Your task to perform on an android device: Open calendar and show me the third week of next month Image 0: 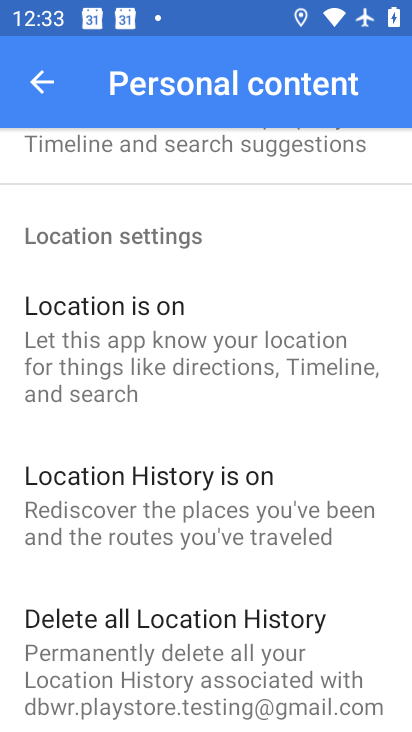
Step 0: press home button
Your task to perform on an android device: Open calendar and show me the third week of next month Image 1: 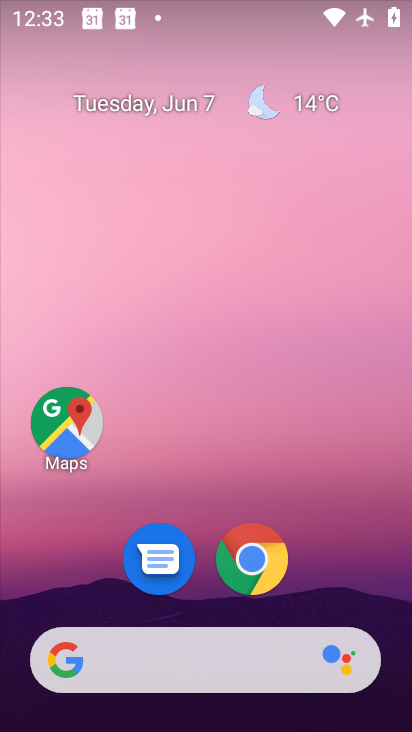
Step 1: drag from (389, 616) to (331, 49)
Your task to perform on an android device: Open calendar and show me the third week of next month Image 2: 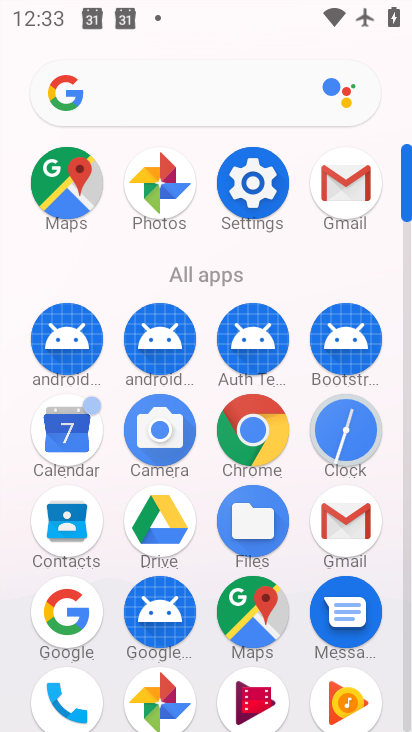
Step 2: click (407, 693)
Your task to perform on an android device: Open calendar and show me the third week of next month Image 3: 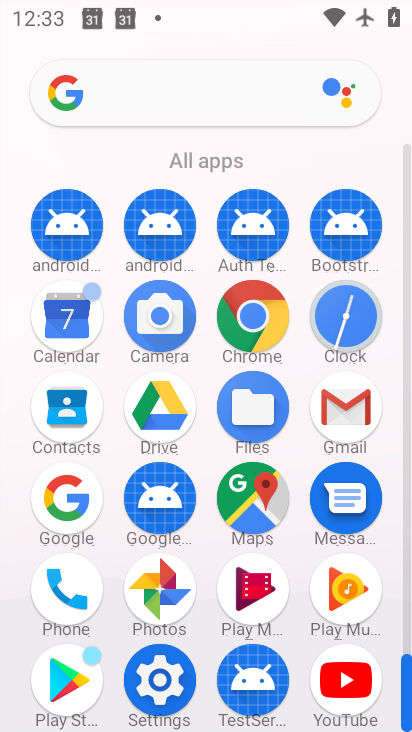
Step 3: click (65, 315)
Your task to perform on an android device: Open calendar and show me the third week of next month Image 4: 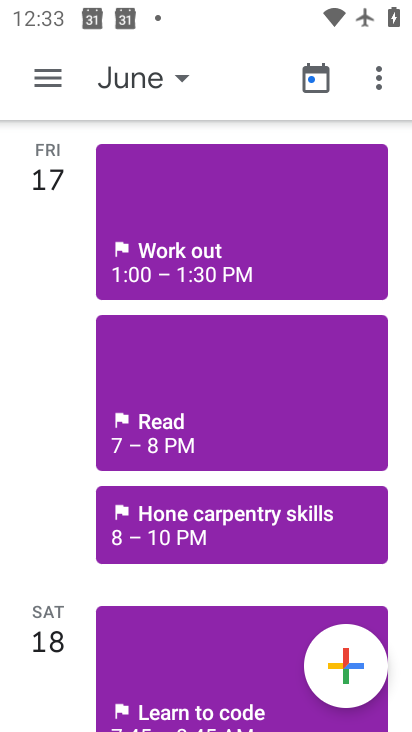
Step 4: click (48, 66)
Your task to perform on an android device: Open calendar and show me the third week of next month Image 5: 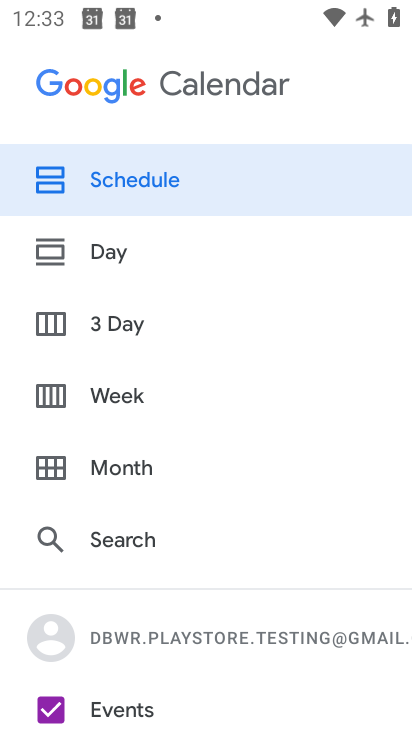
Step 5: click (130, 395)
Your task to perform on an android device: Open calendar and show me the third week of next month Image 6: 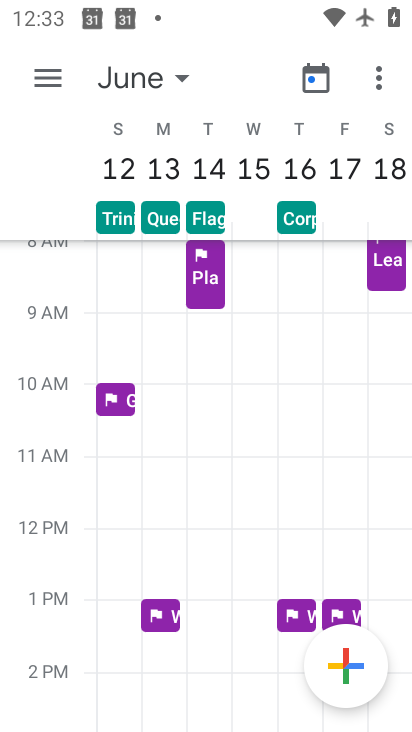
Step 6: click (180, 77)
Your task to perform on an android device: Open calendar and show me the third week of next month Image 7: 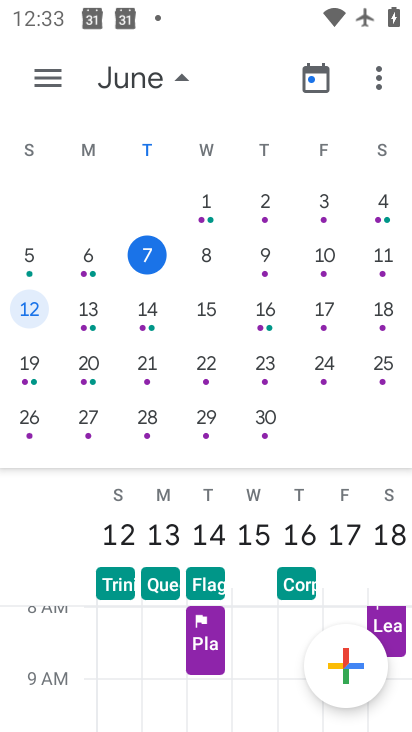
Step 7: drag from (372, 299) to (50, 284)
Your task to perform on an android device: Open calendar and show me the third week of next month Image 8: 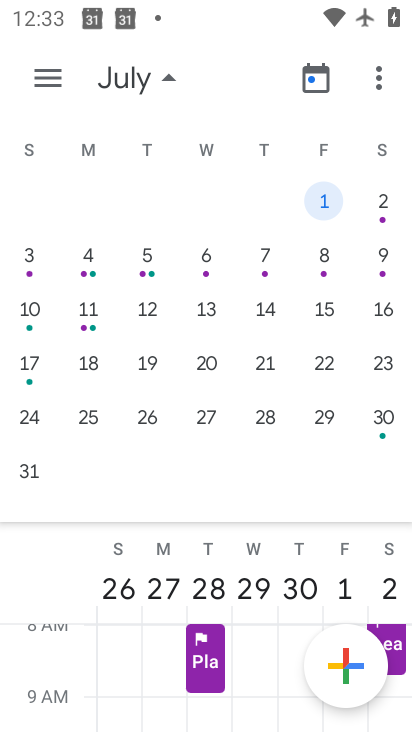
Step 8: click (35, 362)
Your task to perform on an android device: Open calendar and show me the third week of next month Image 9: 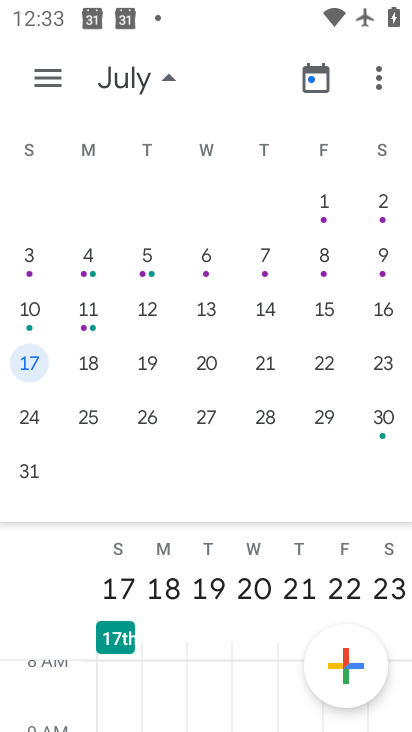
Step 9: task complete